Your task to perform on an android device: Open settings on Google Maps Image 0: 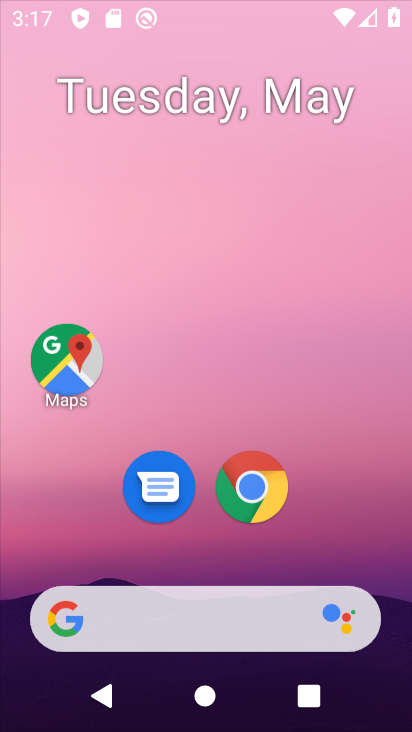
Step 0: press home button
Your task to perform on an android device: Open settings on Google Maps Image 1: 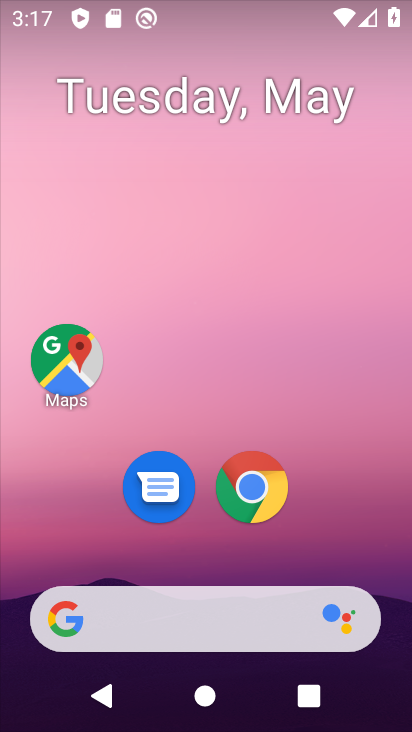
Step 1: drag from (197, 557) to (272, 17)
Your task to perform on an android device: Open settings on Google Maps Image 2: 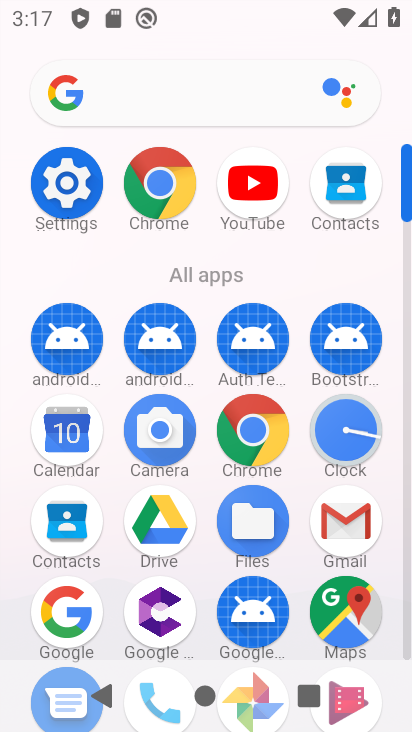
Step 2: click (340, 604)
Your task to perform on an android device: Open settings on Google Maps Image 3: 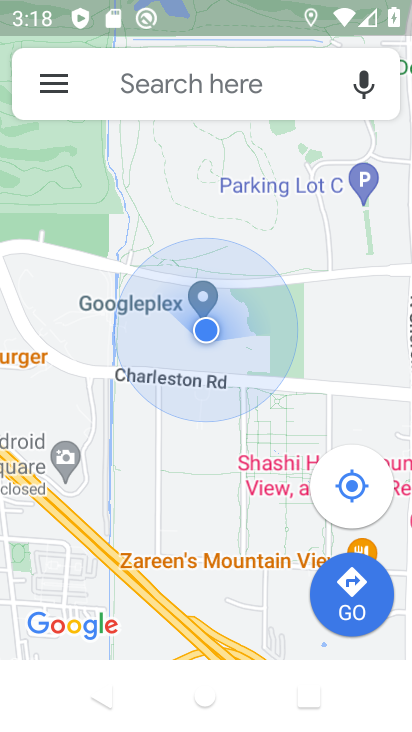
Step 3: click (50, 72)
Your task to perform on an android device: Open settings on Google Maps Image 4: 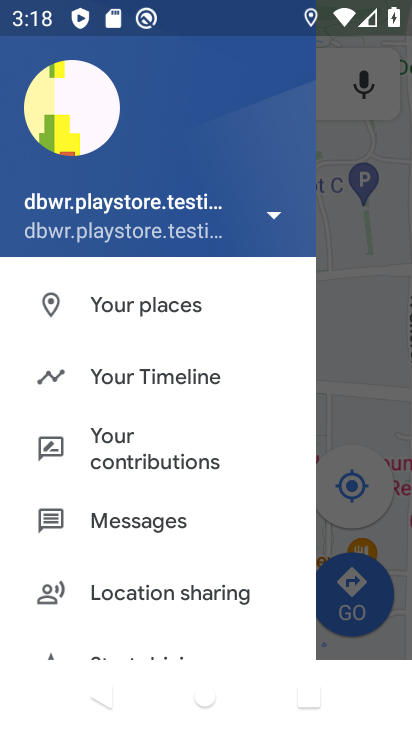
Step 4: drag from (159, 558) to (179, 174)
Your task to perform on an android device: Open settings on Google Maps Image 5: 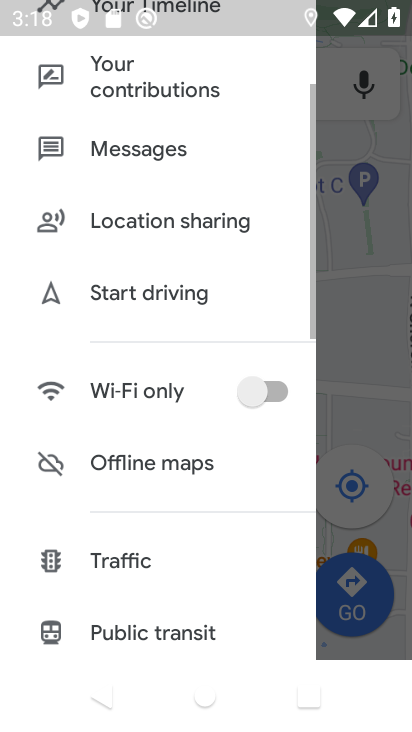
Step 5: drag from (125, 636) to (180, 114)
Your task to perform on an android device: Open settings on Google Maps Image 6: 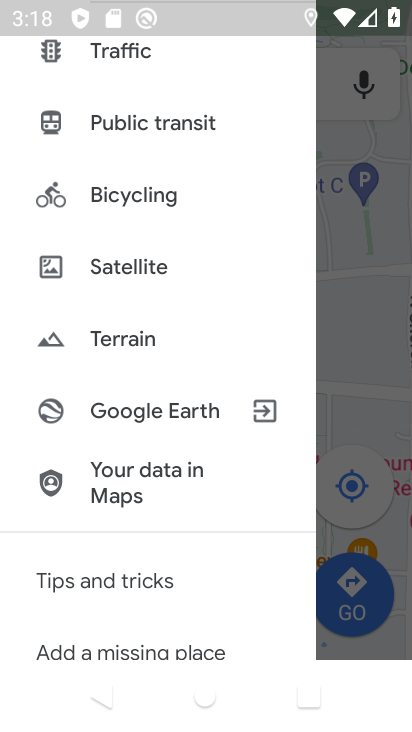
Step 6: drag from (120, 633) to (158, 153)
Your task to perform on an android device: Open settings on Google Maps Image 7: 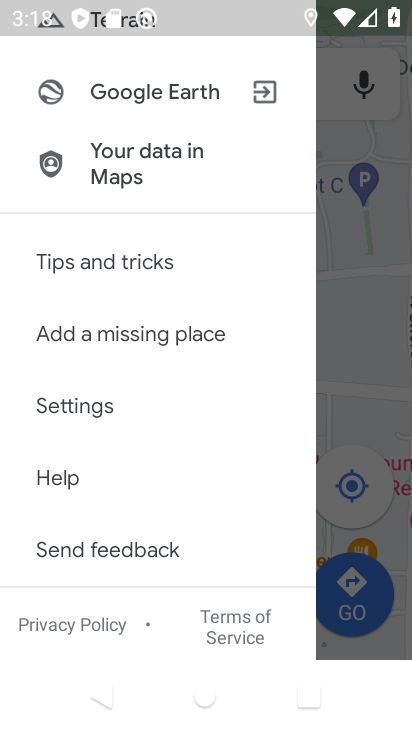
Step 7: click (120, 409)
Your task to perform on an android device: Open settings on Google Maps Image 8: 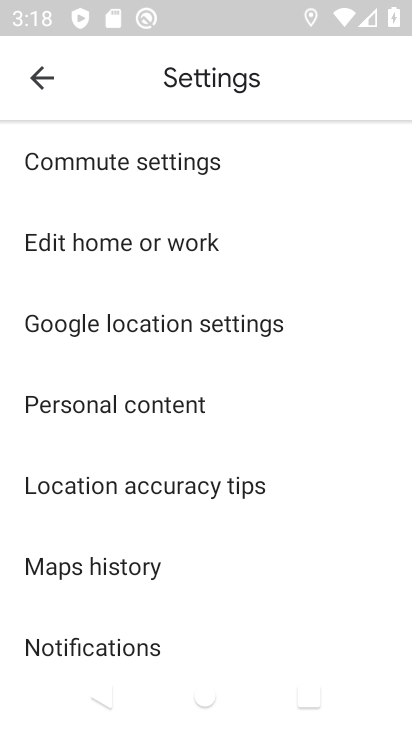
Step 8: drag from (226, 573) to (238, 429)
Your task to perform on an android device: Open settings on Google Maps Image 9: 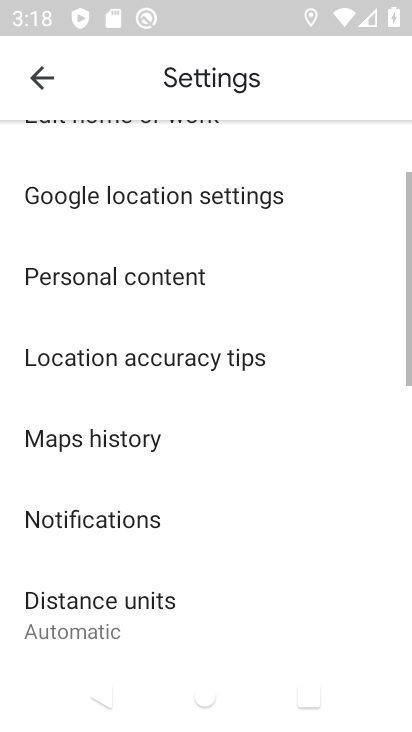
Step 9: click (260, 242)
Your task to perform on an android device: Open settings on Google Maps Image 10: 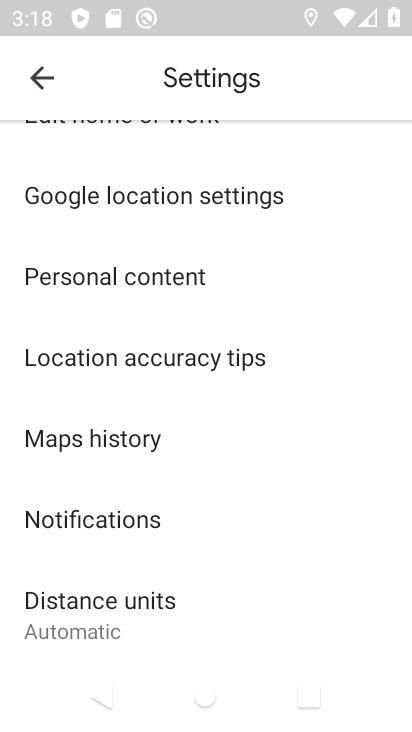
Step 10: task complete